Your task to perform on an android device: What's the weather going to be this weekend? Image 0: 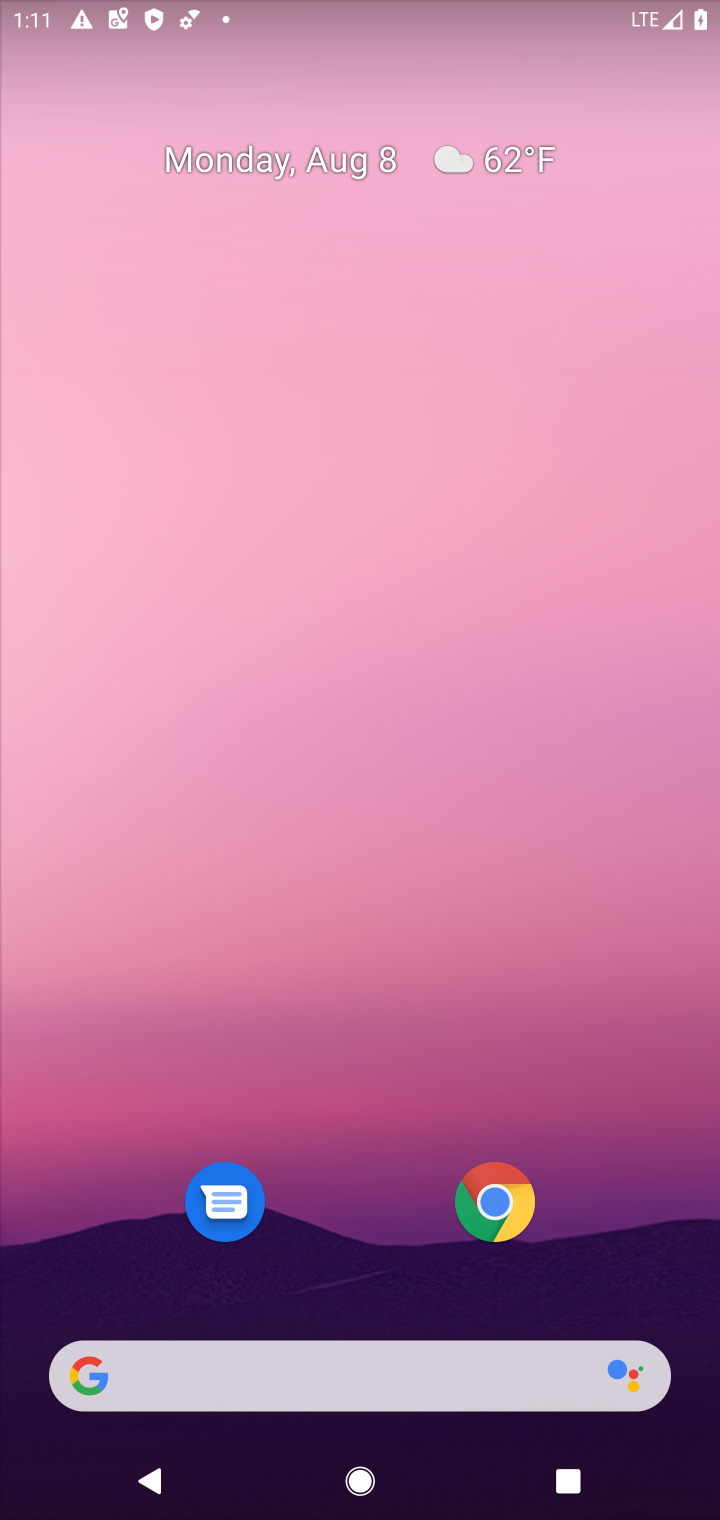
Step 0: drag from (348, 902) to (416, 93)
Your task to perform on an android device: What's the weather going to be this weekend? Image 1: 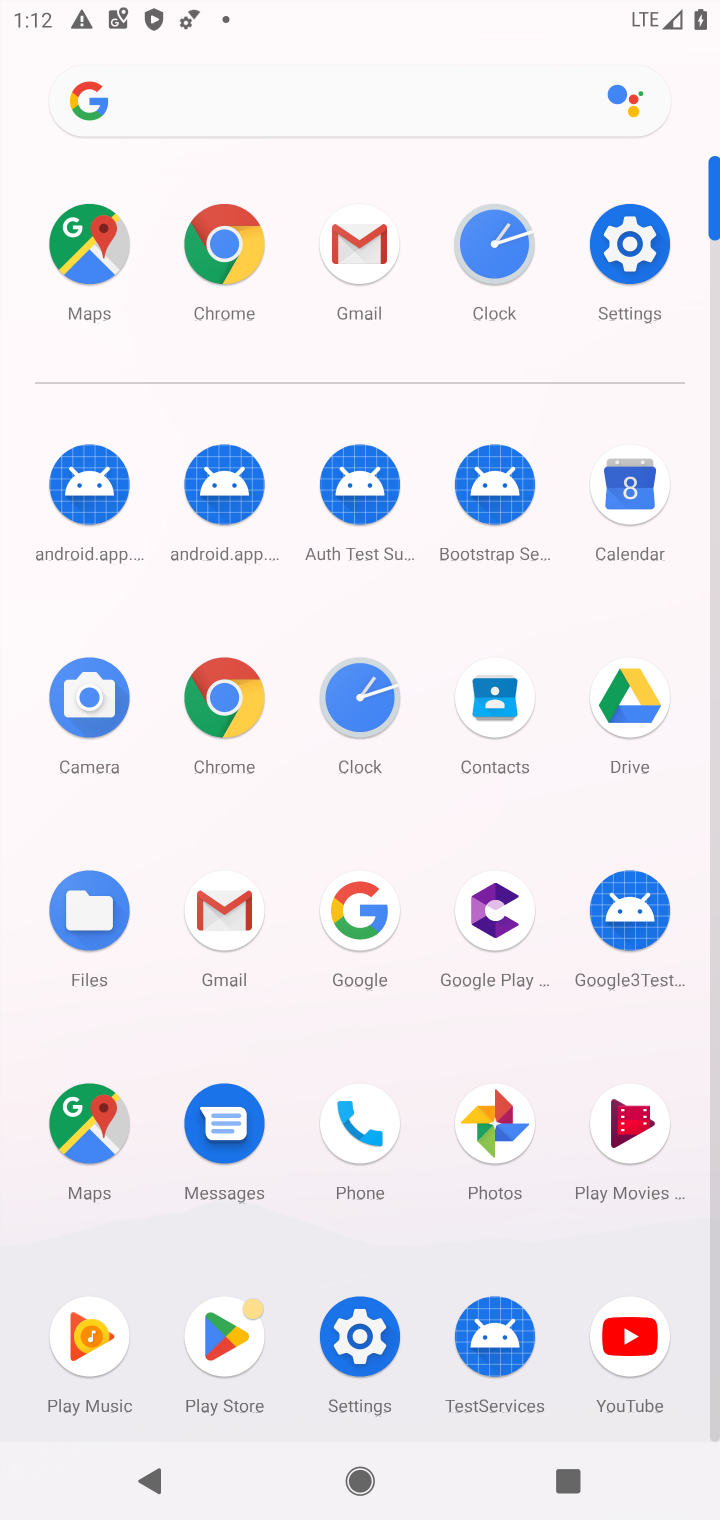
Step 1: click (369, 929)
Your task to perform on an android device: What's the weather going to be this weekend? Image 2: 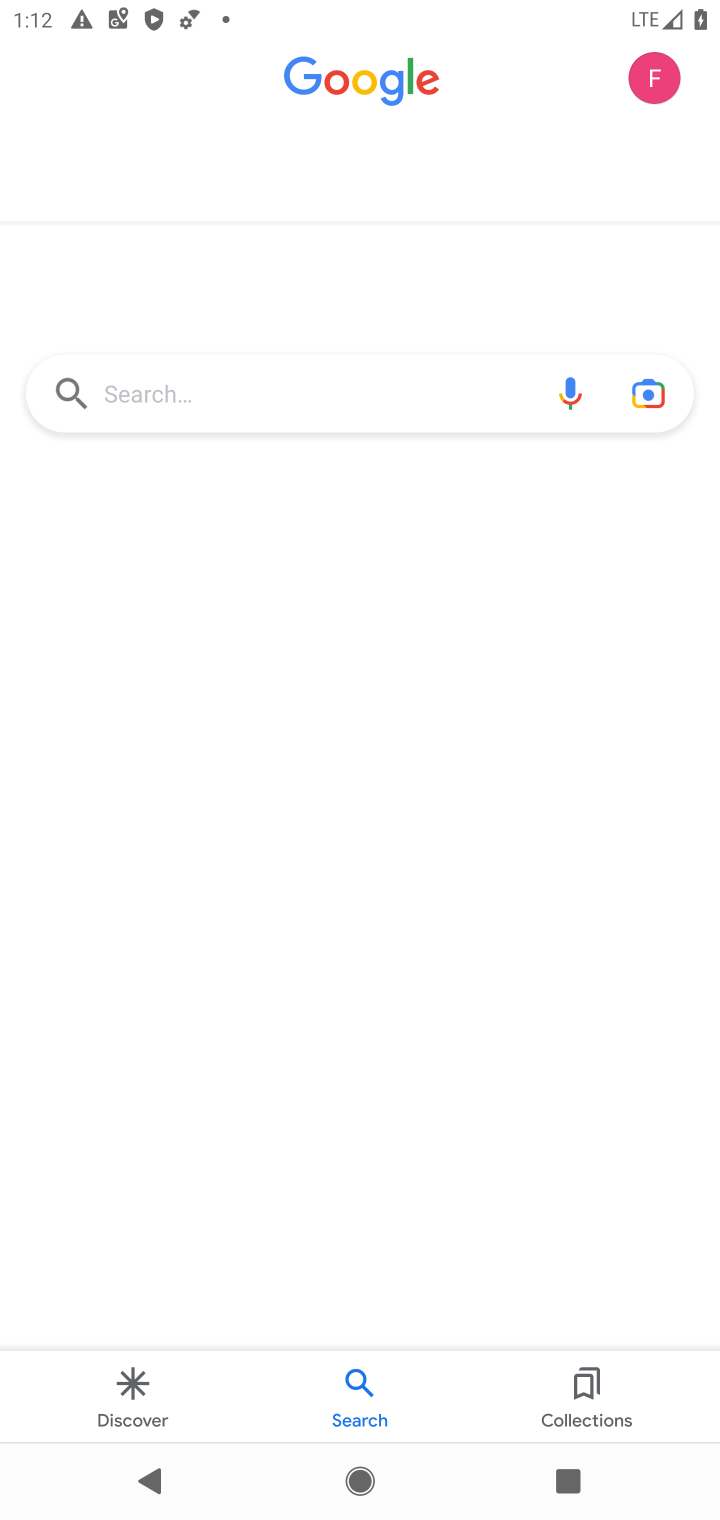
Step 2: click (289, 404)
Your task to perform on an android device: What's the weather going to be this weekend? Image 3: 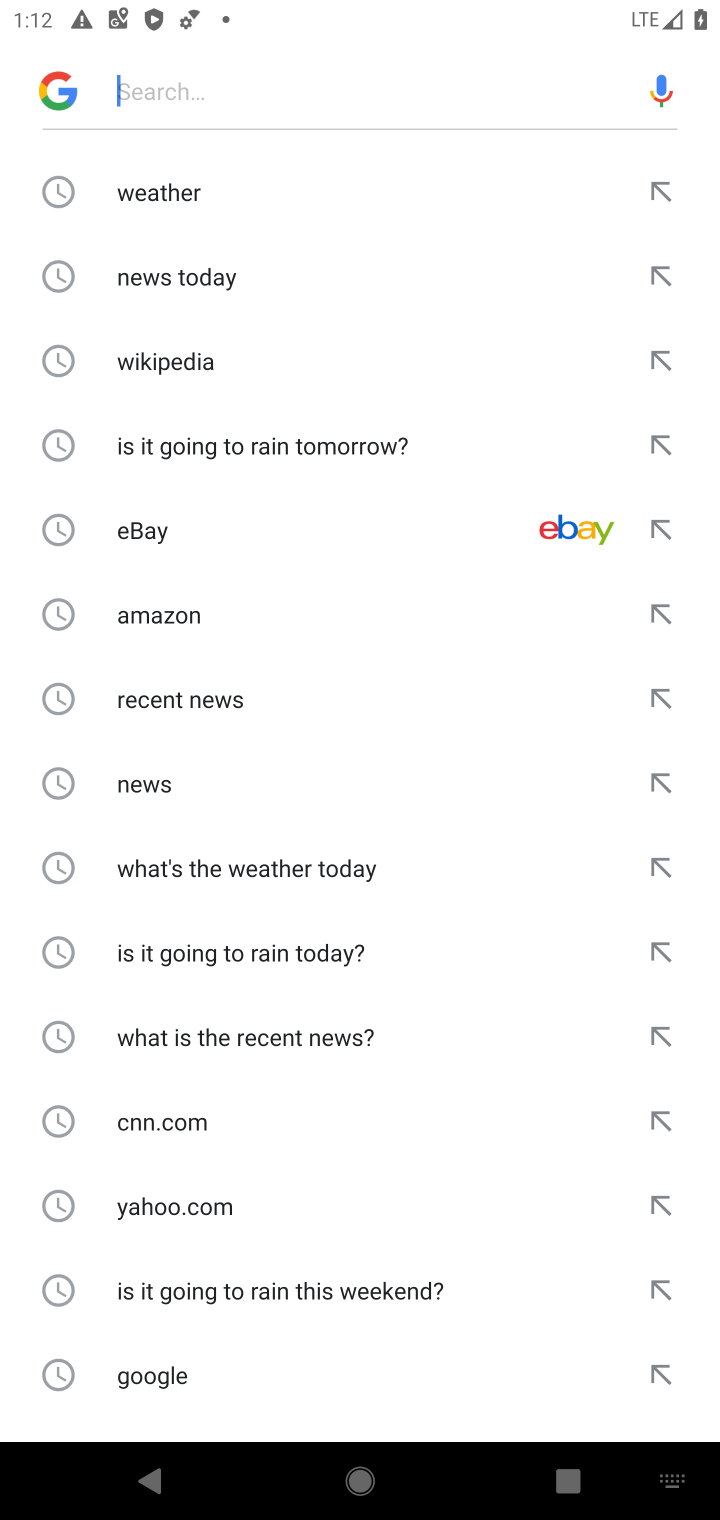
Step 3: click (174, 190)
Your task to perform on an android device: What's the weather going to be this weekend? Image 4: 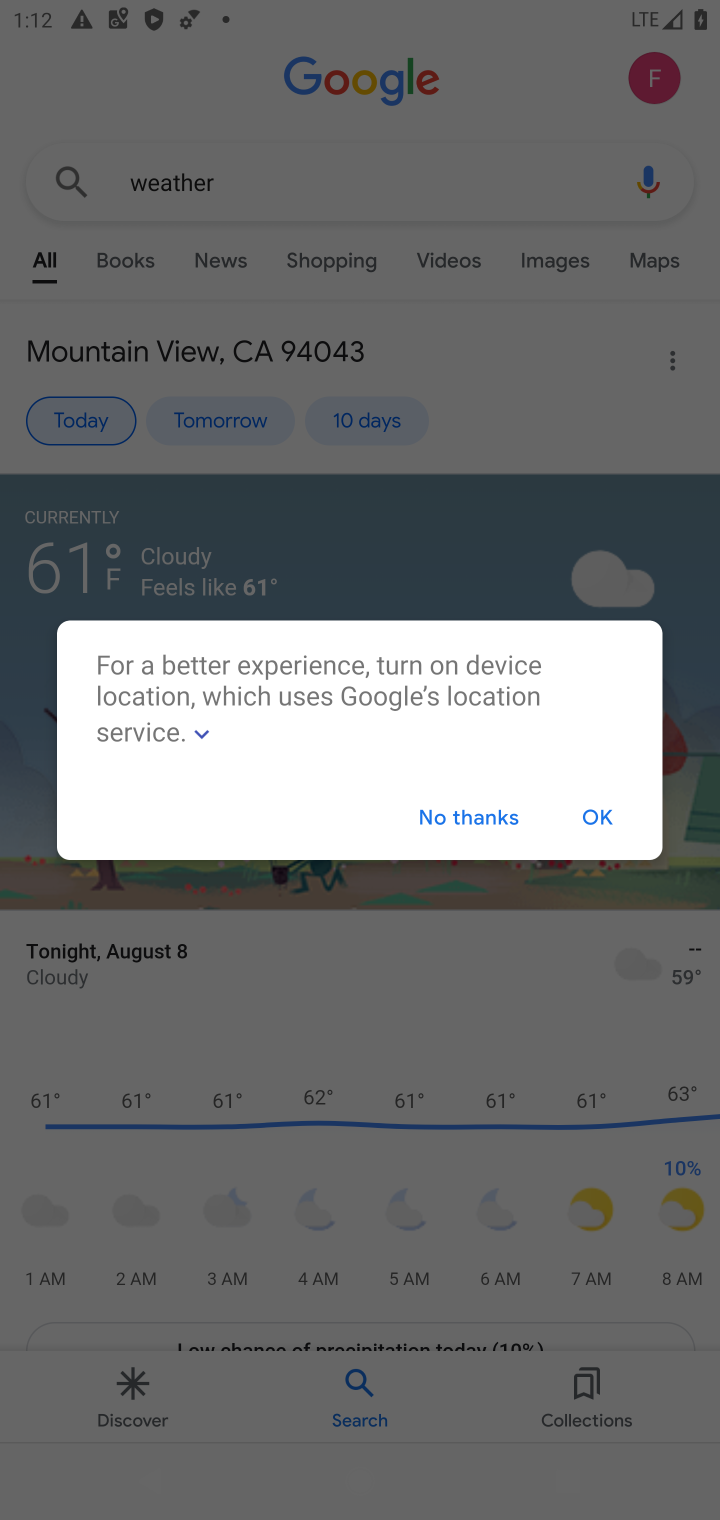
Step 4: task complete